Your task to perform on an android device: turn on airplane mode Image 0: 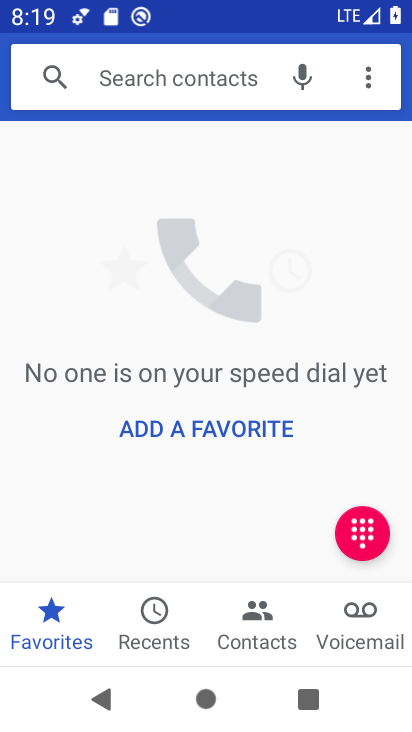
Step 0: press home button
Your task to perform on an android device: turn on airplane mode Image 1: 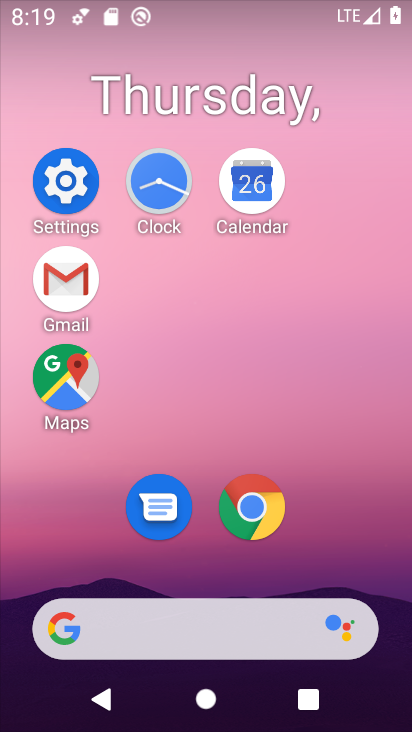
Step 1: click (71, 199)
Your task to perform on an android device: turn on airplane mode Image 2: 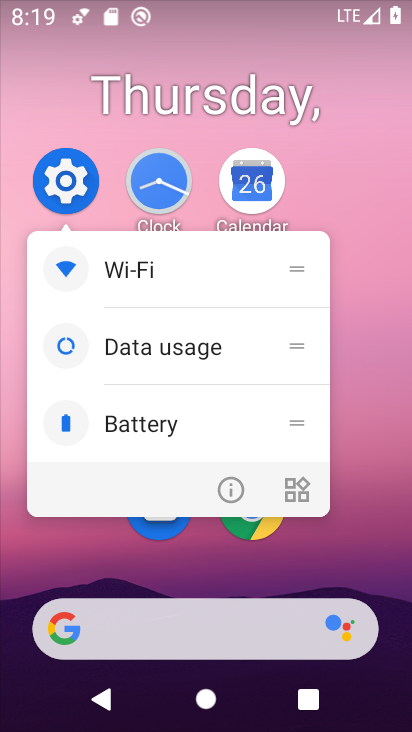
Step 2: click (77, 194)
Your task to perform on an android device: turn on airplane mode Image 3: 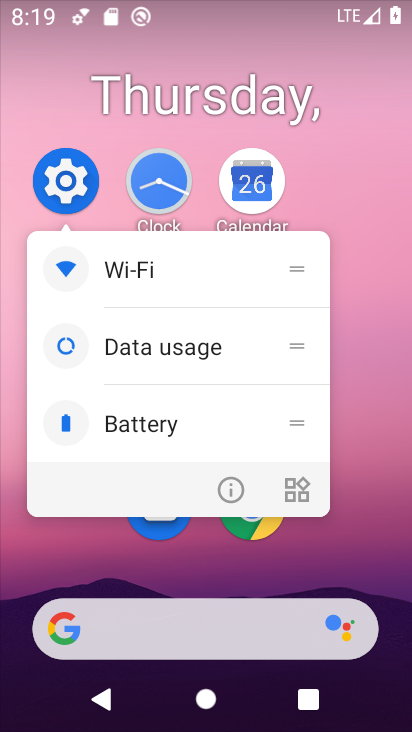
Step 3: click (72, 170)
Your task to perform on an android device: turn on airplane mode Image 4: 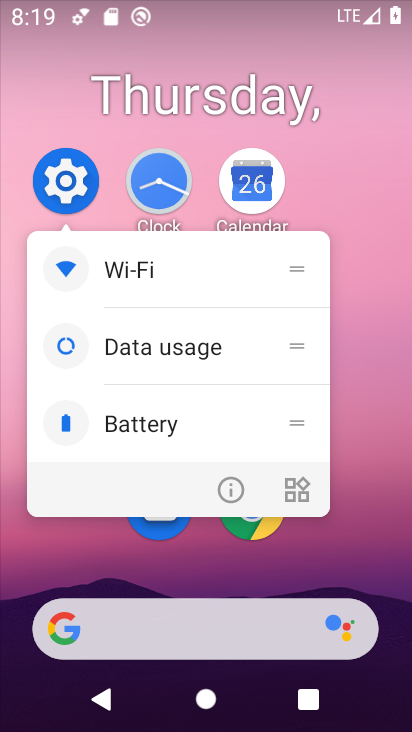
Step 4: click (82, 173)
Your task to perform on an android device: turn on airplane mode Image 5: 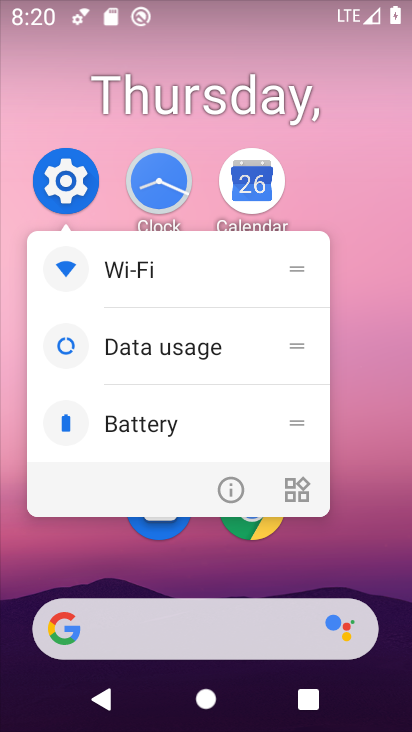
Step 5: click (82, 173)
Your task to perform on an android device: turn on airplane mode Image 6: 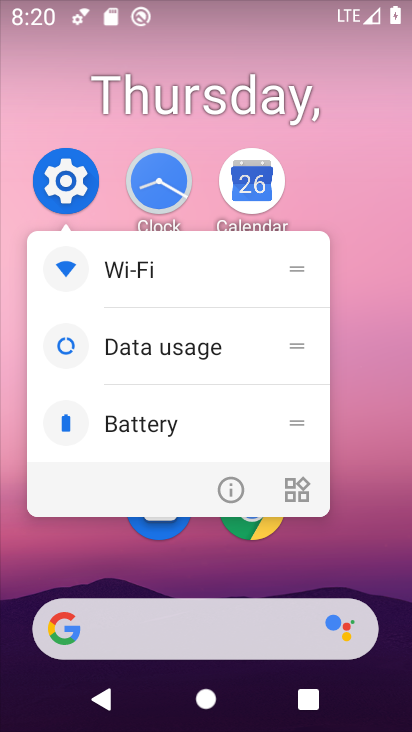
Step 6: click (82, 173)
Your task to perform on an android device: turn on airplane mode Image 7: 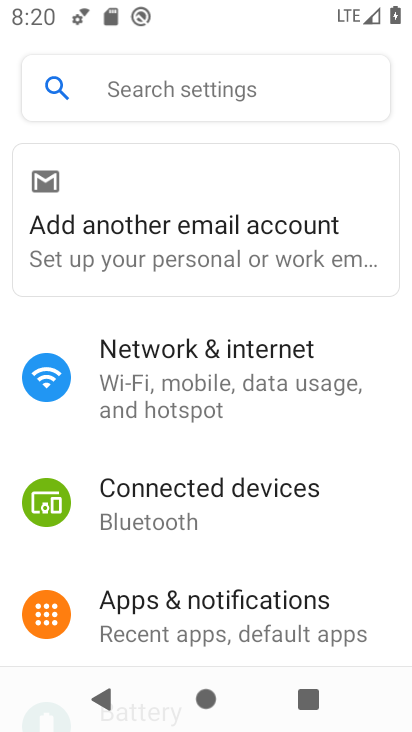
Step 7: click (300, 376)
Your task to perform on an android device: turn on airplane mode Image 8: 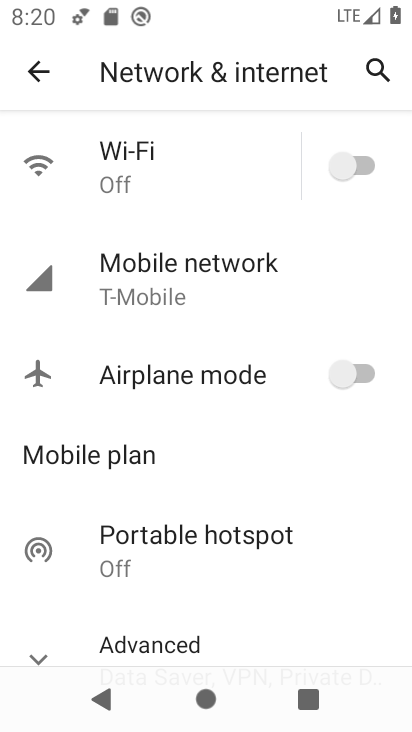
Step 8: click (300, 376)
Your task to perform on an android device: turn on airplane mode Image 9: 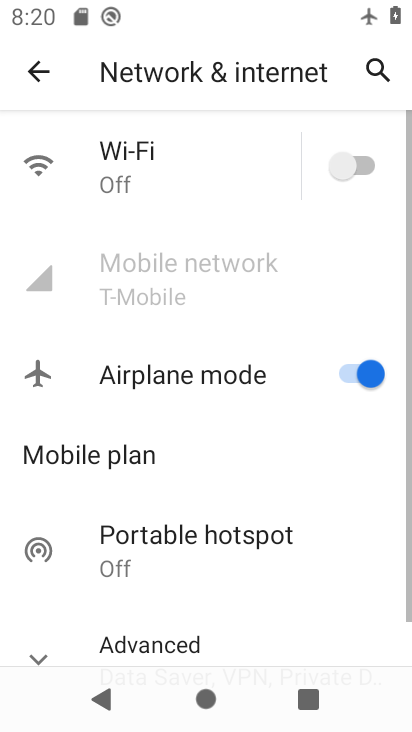
Step 9: task complete